Your task to perform on an android device: open a bookmark in the chrome app Image 0: 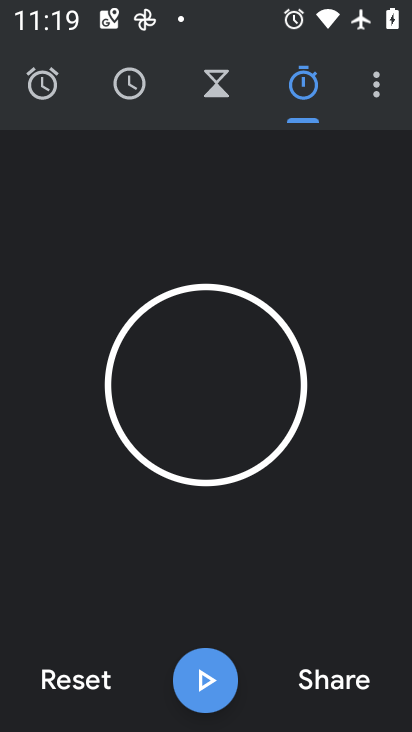
Step 0: press home button
Your task to perform on an android device: open a bookmark in the chrome app Image 1: 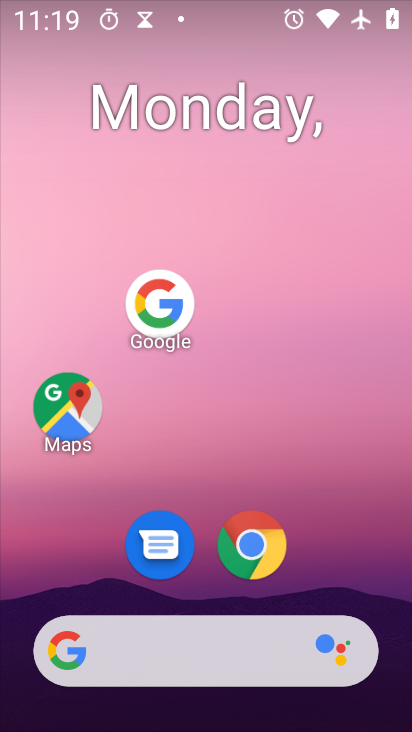
Step 1: click (246, 543)
Your task to perform on an android device: open a bookmark in the chrome app Image 2: 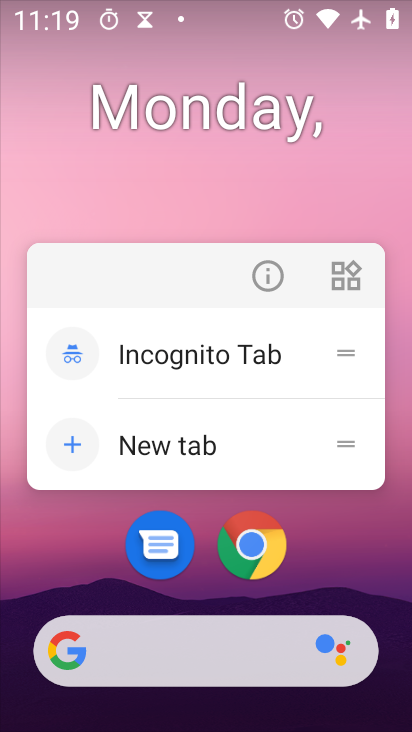
Step 2: click (245, 547)
Your task to perform on an android device: open a bookmark in the chrome app Image 3: 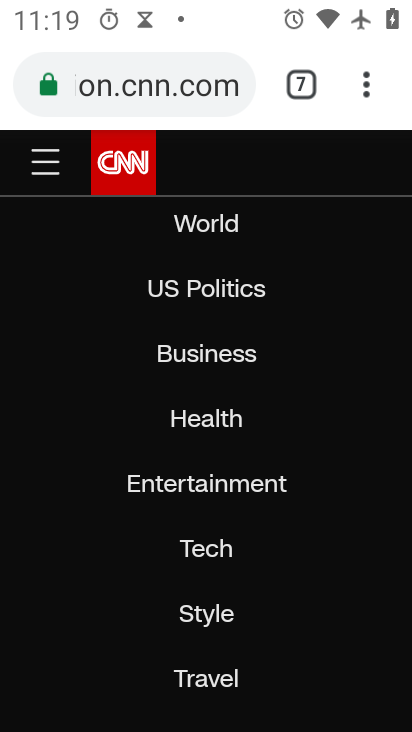
Step 3: task complete